Your task to perform on an android device: change the upload size in google photos Image 0: 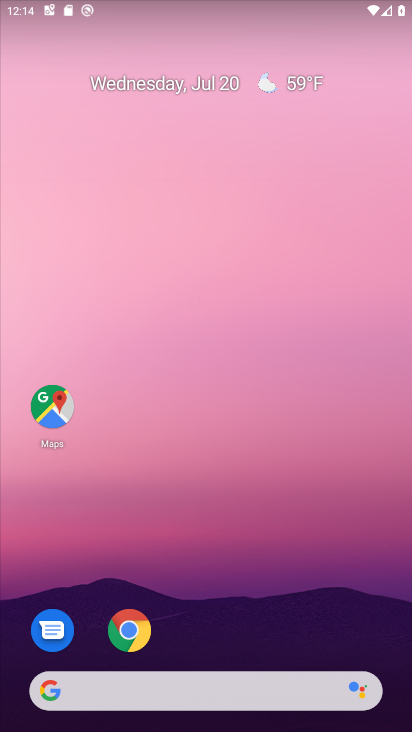
Step 0: drag from (389, 633) to (312, 191)
Your task to perform on an android device: change the upload size in google photos Image 1: 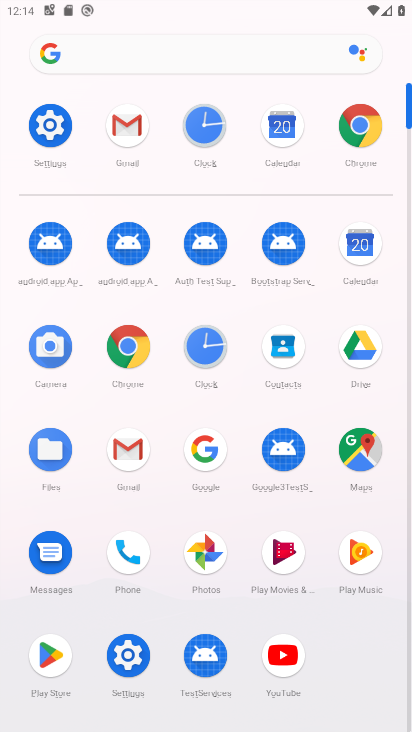
Step 1: click (203, 554)
Your task to perform on an android device: change the upload size in google photos Image 2: 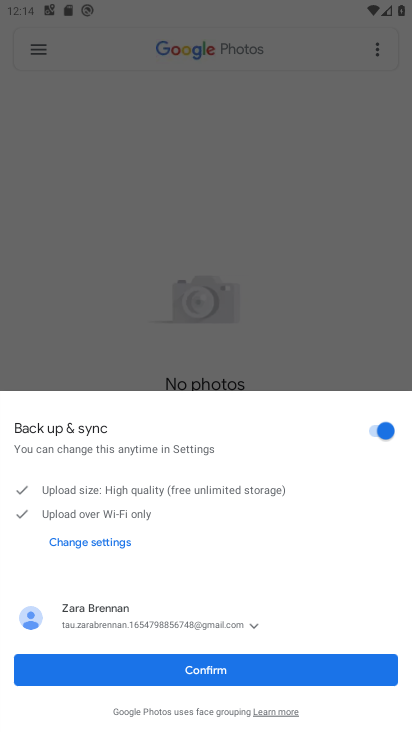
Step 2: click (205, 668)
Your task to perform on an android device: change the upload size in google photos Image 3: 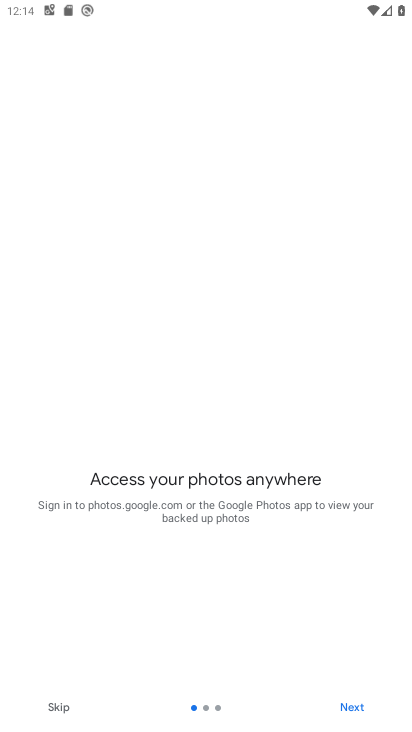
Step 3: click (49, 709)
Your task to perform on an android device: change the upload size in google photos Image 4: 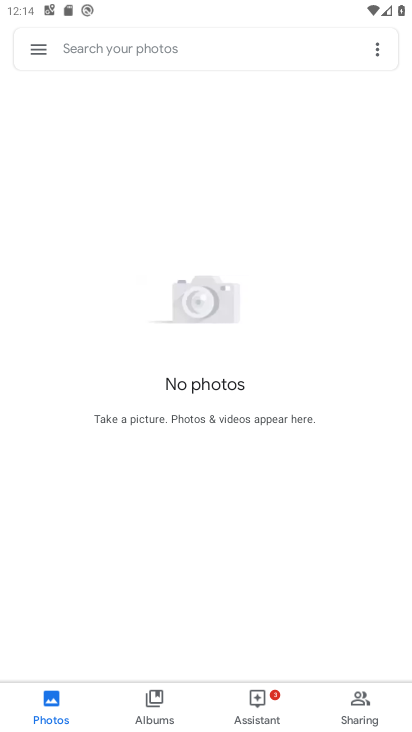
Step 4: click (38, 48)
Your task to perform on an android device: change the upload size in google photos Image 5: 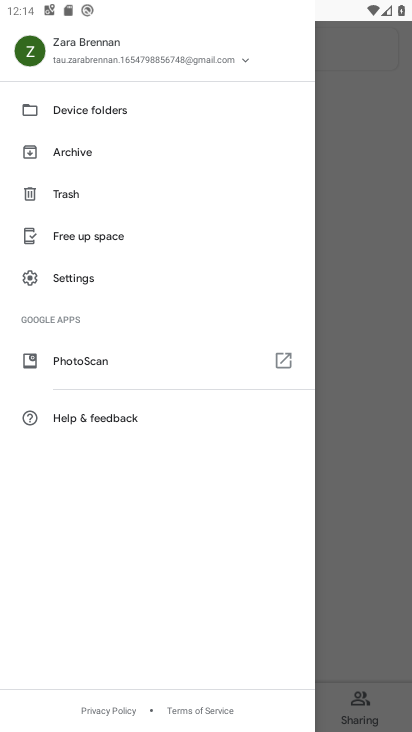
Step 5: click (71, 272)
Your task to perform on an android device: change the upload size in google photos Image 6: 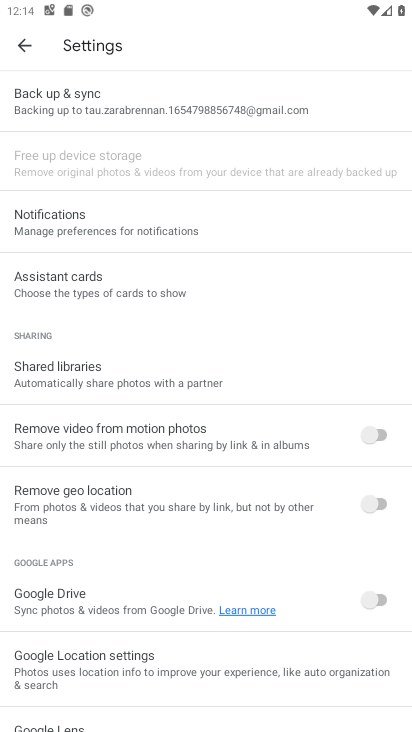
Step 6: click (73, 97)
Your task to perform on an android device: change the upload size in google photos Image 7: 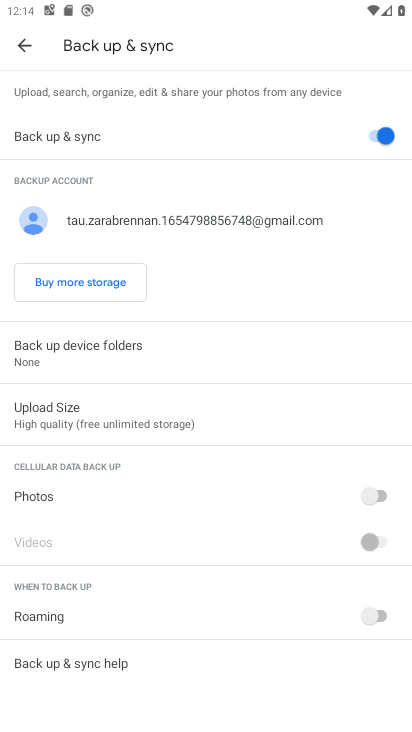
Step 7: click (51, 408)
Your task to perform on an android device: change the upload size in google photos Image 8: 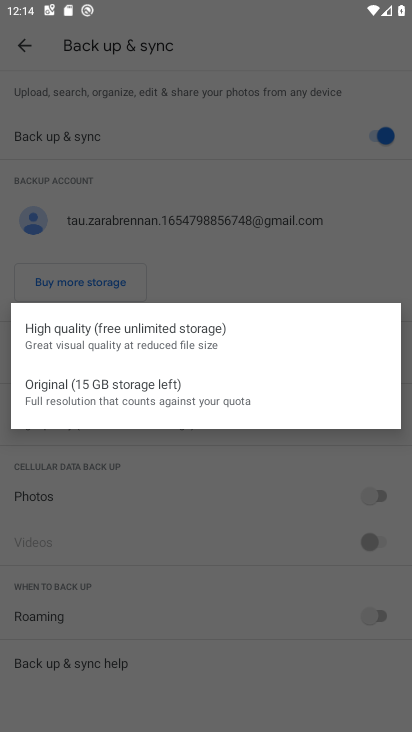
Step 8: click (84, 396)
Your task to perform on an android device: change the upload size in google photos Image 9: 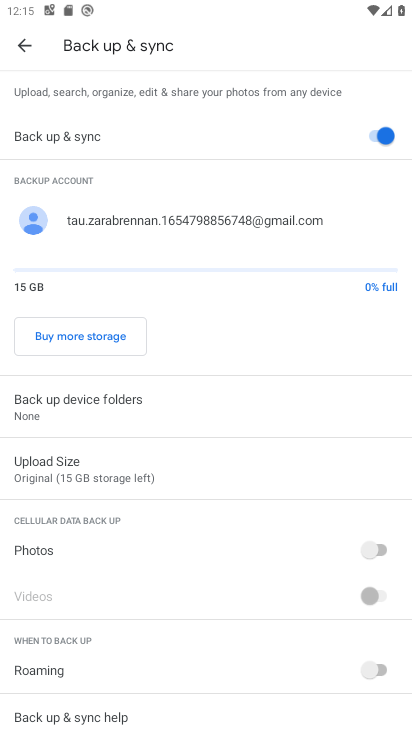
Step 9: task complete